Your task to perform on an android device: open app "Microsoft Excel" Image 0: 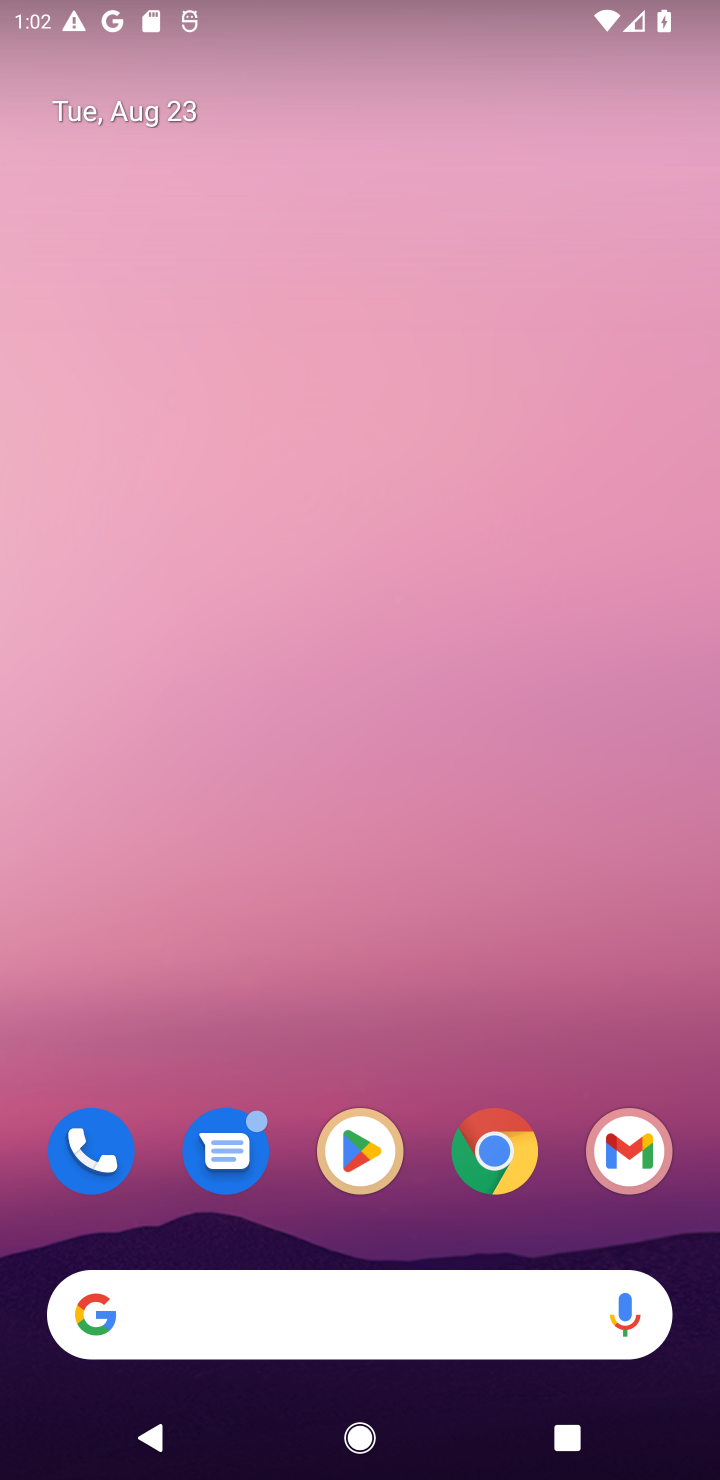
Step 0: click (385, 1145)
Your task to perform on an android device: open app "Microsoft Excel" Image 1: 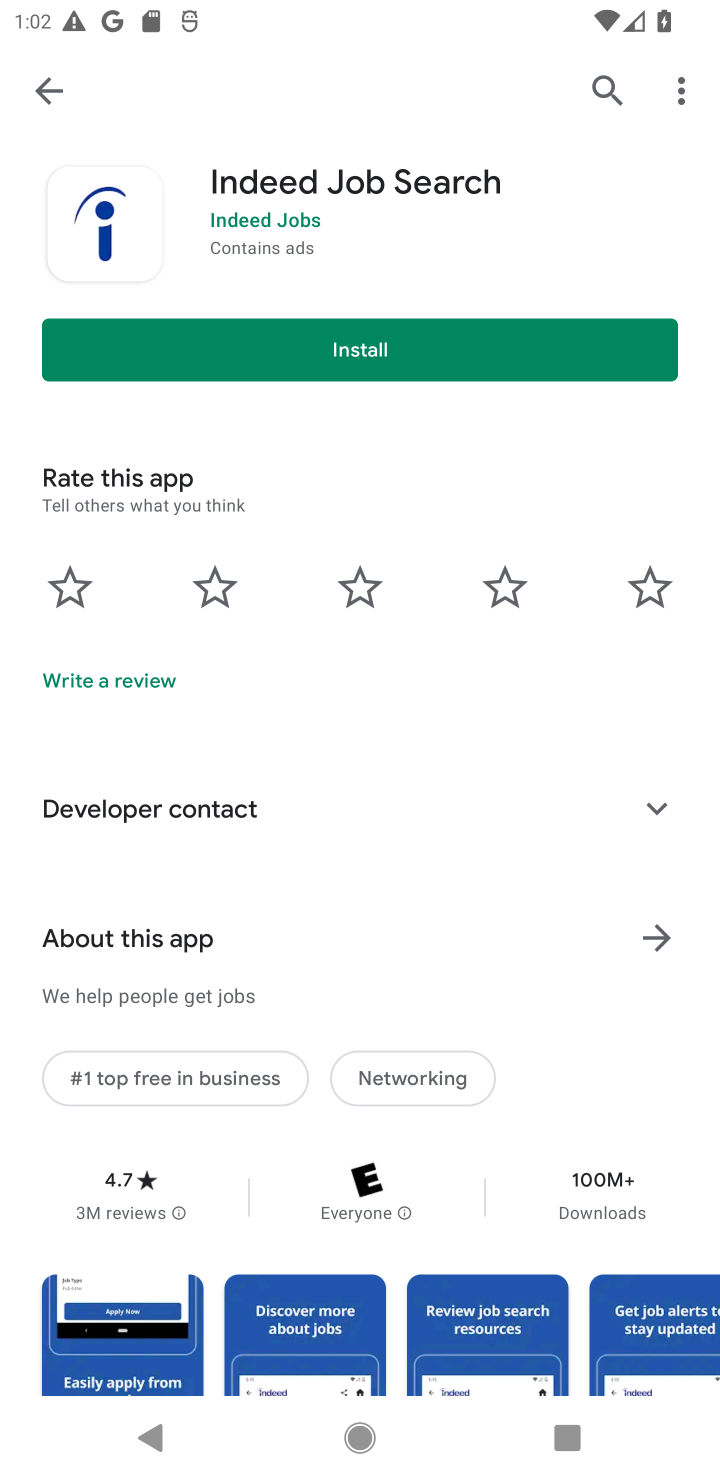
Step 1: click (609, 78)
Your task to perform on an android device: open app "Microsoft Excel" Image 2: 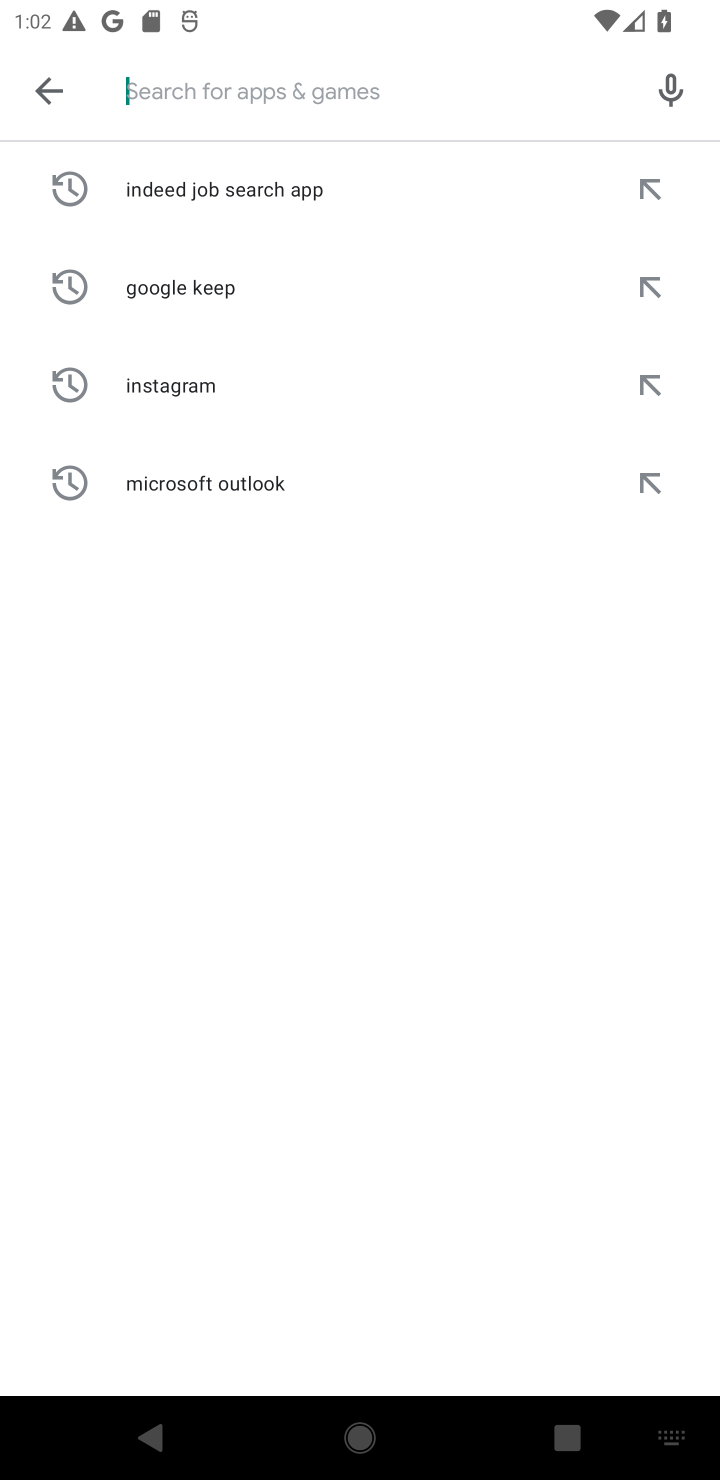
Step 2: type "Microsoft Excel"
Your task to perform on an android device: open app "Microsoft Excel" Image 3: 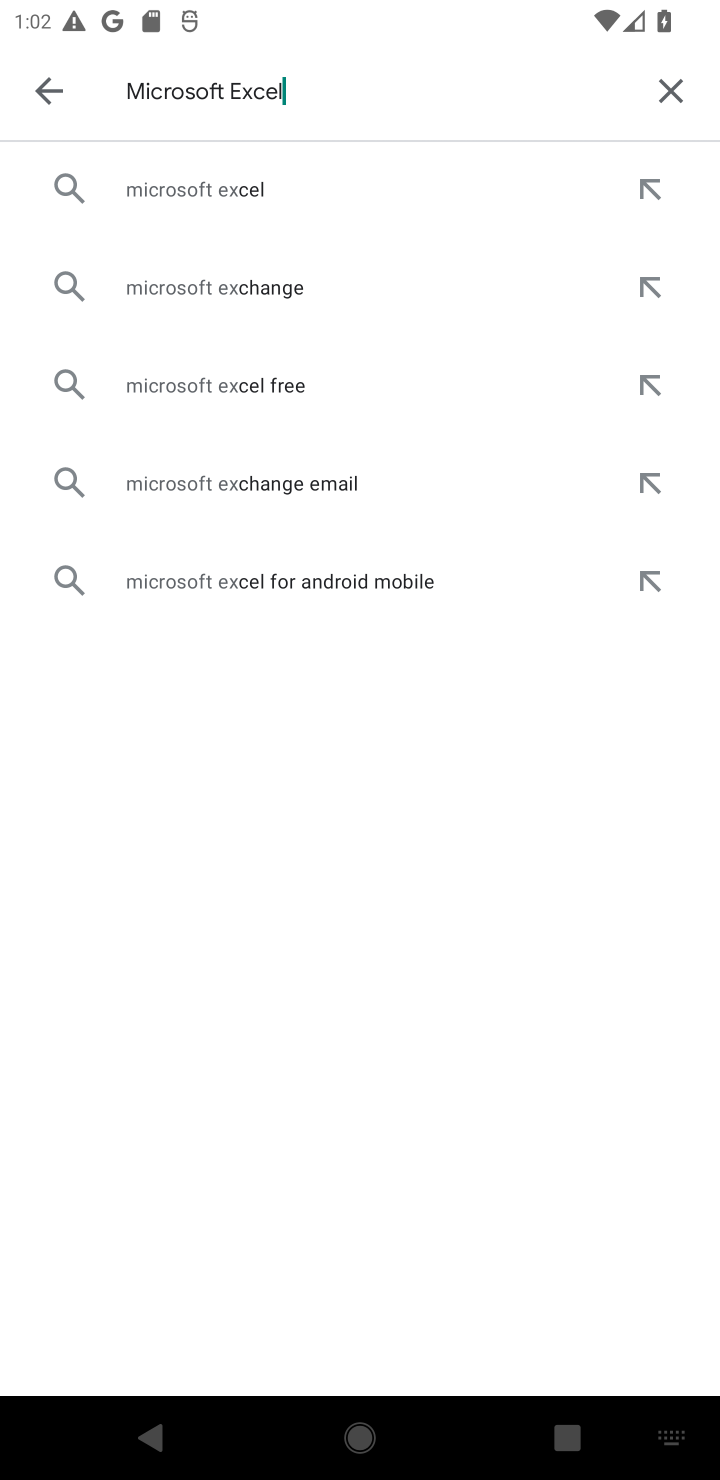
Step 3: type ""
Your task to perform on an android device: open app "Microsoft Excel" Image 4: 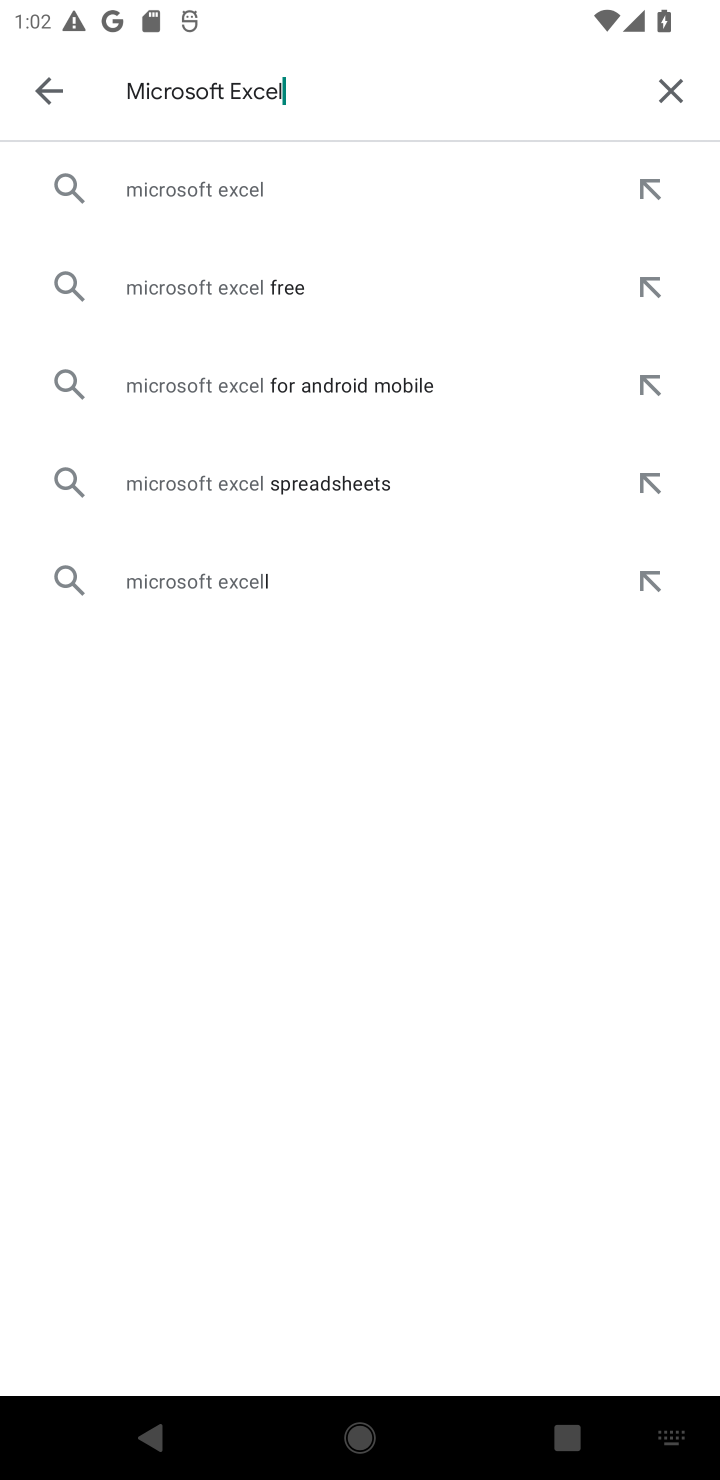
Step 4: click (213, 165)
Your task to perform on an android device: open app "Microsoft Excel" Image 5: 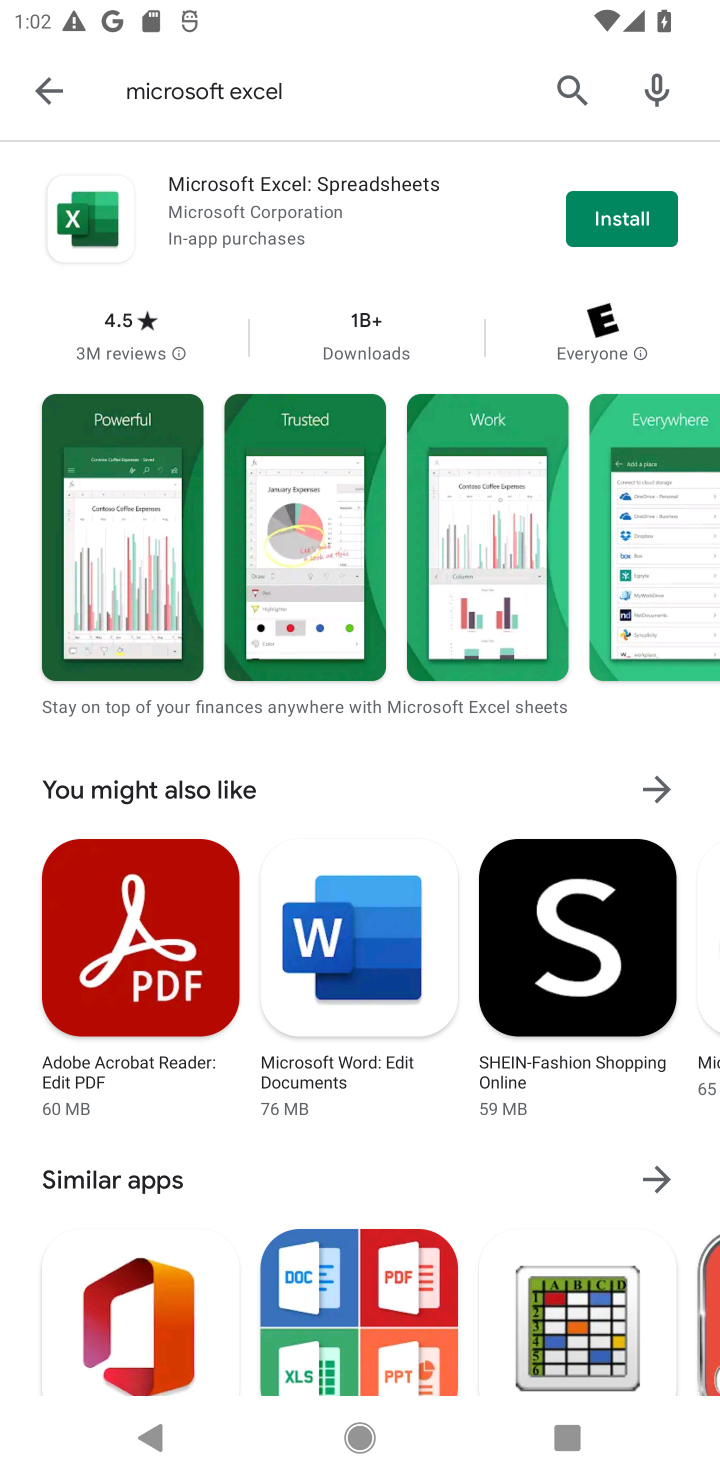
Step 5: click (412, 234)
Your task to perform on an android device: open app "Microsoft Excel" Image 6: 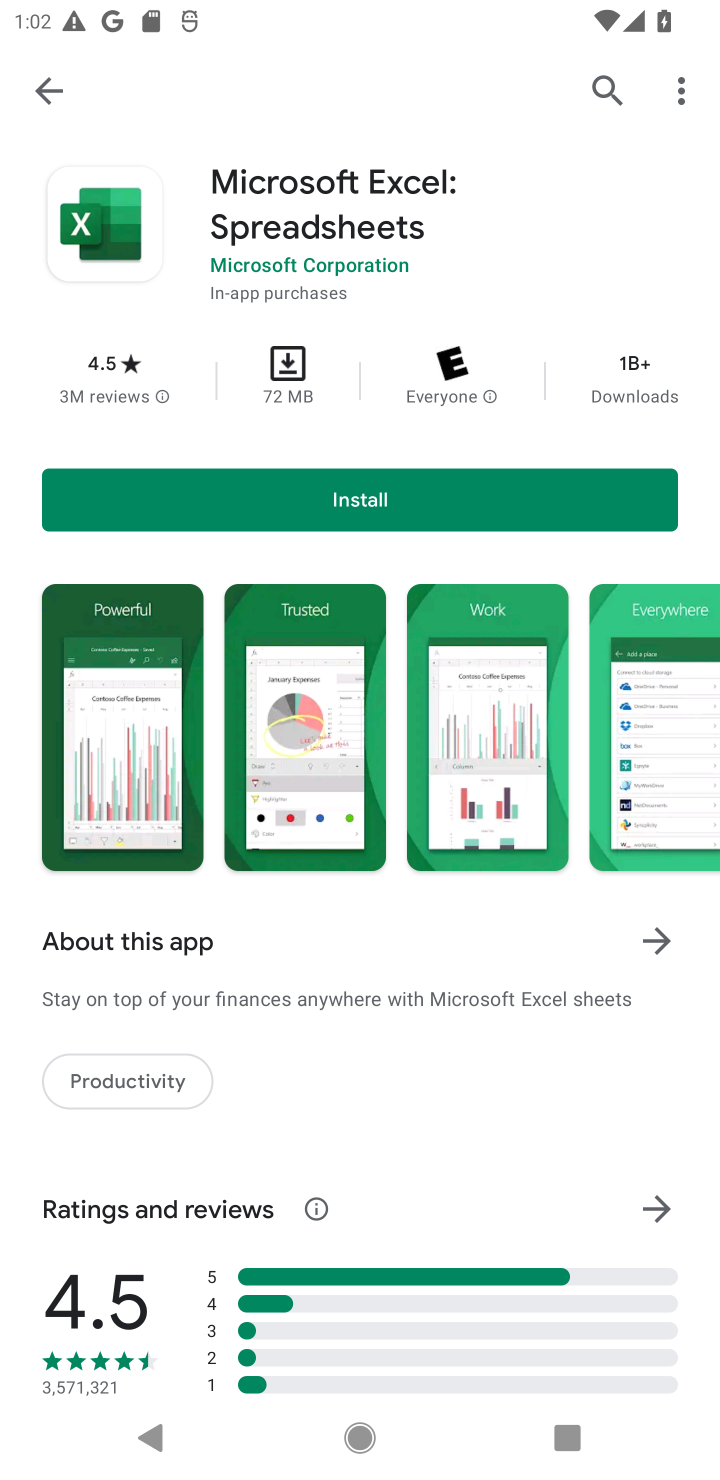
Step 6: task complete